Your task to perform on an android device: Go to location settings Image 0: 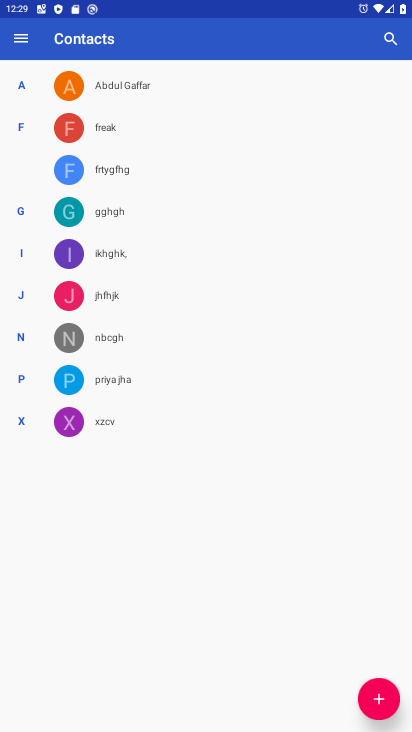
Step 0: press home button
Your task to perform on an android device: Go to location settings Image 1: 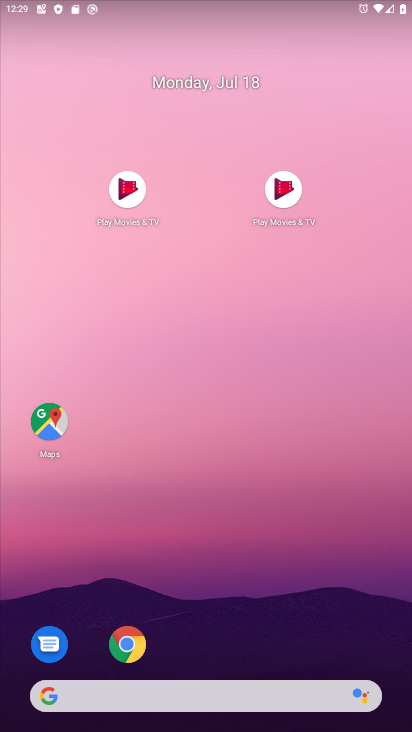
Step 1: drag from (218, 487) to (239, 67)
Your task to perform on an android device: Go to location settings Image 2: 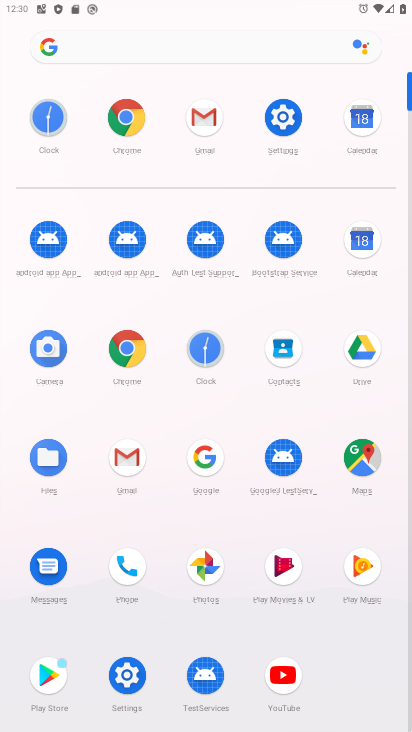
Step 2: click (286, 113)
Your task to perform on an android device: Go to location settings Image 3: 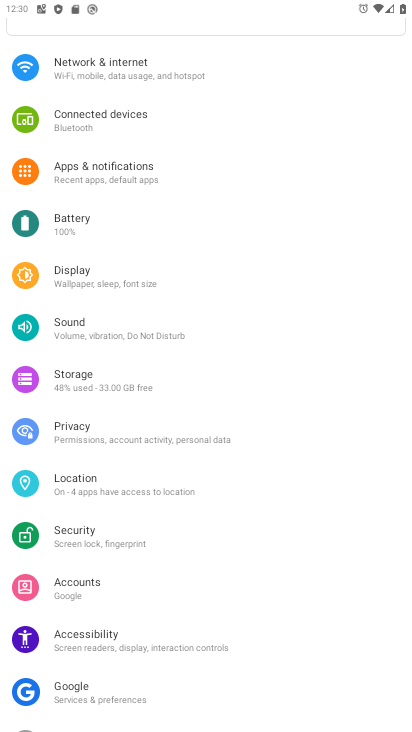
Step 3: click (117, 493)
Your task to perform on an android device: Go to location settings Image 4: 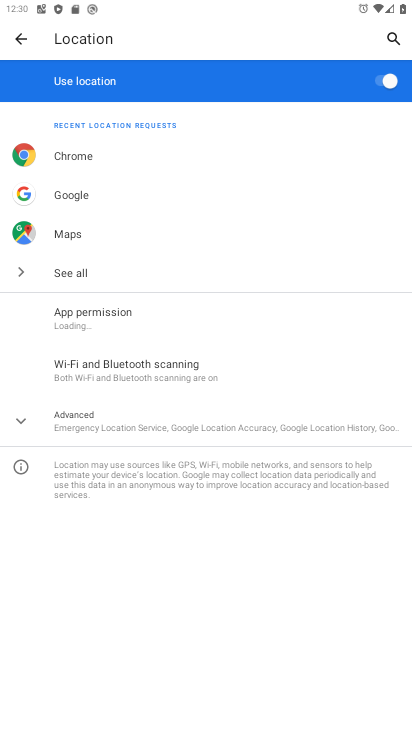
Step 4: task complete